Your task to perform on an android device: turn on sleep mode Image 0: 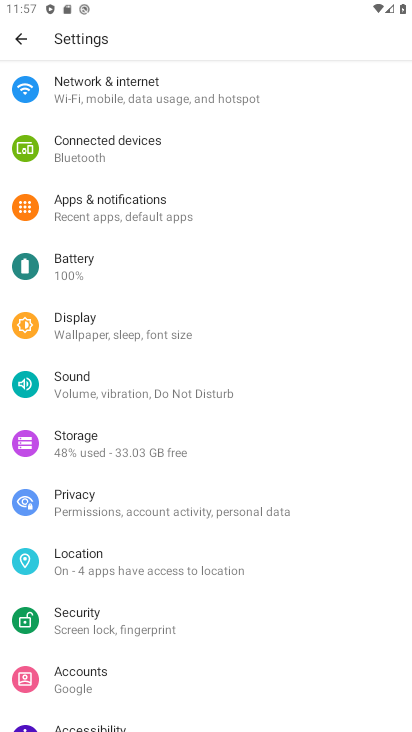
Step 0: click (58, 306)
Your task to perform on an android device: turn on sleep mode Image 1: 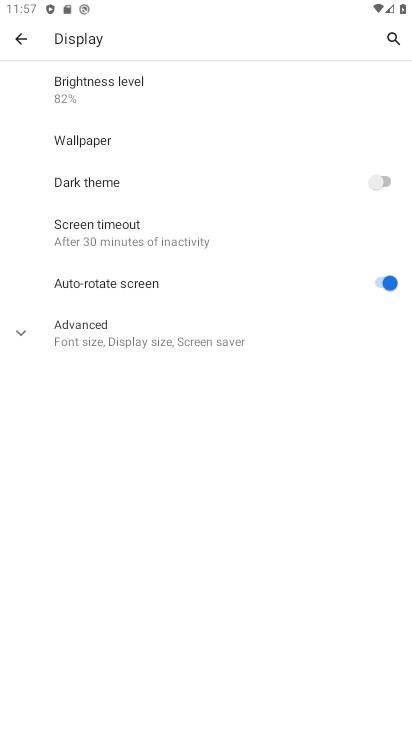
Step 1: click (54, 328)
Your task to perform on an android device: turn on sleep mode Image 2: 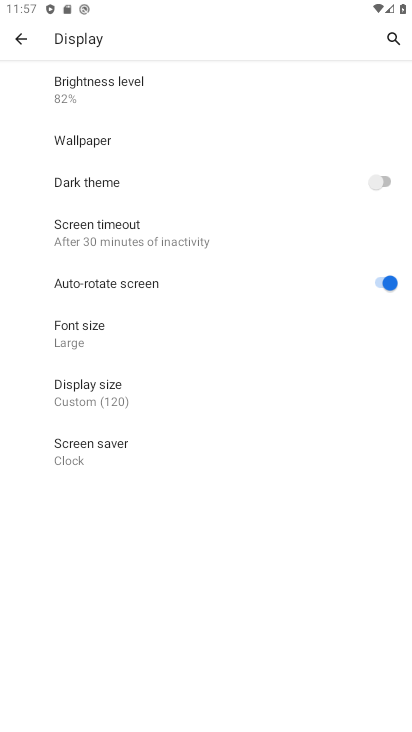
Step 2: task complete